Your task to perform on an android device: turn notification dots on Image 0: 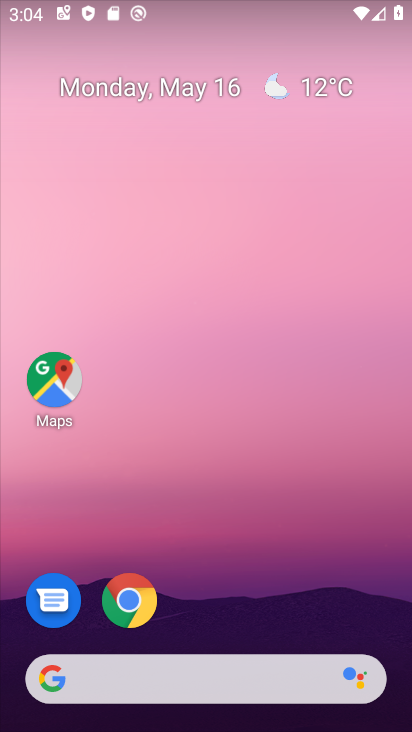
Step 0: drag from (213, 655) to (342, 2)
Your task to perform on an android device: turn notification dots on Image 1: 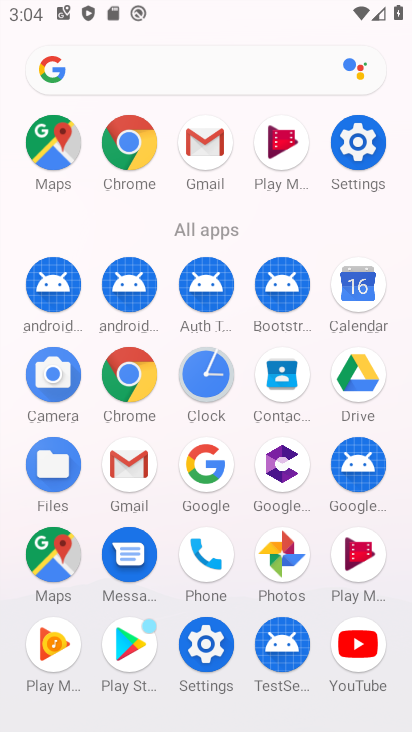
Step 1: click (351, 151)
Your task to perform on an android device: turn notification dots on Image 2: 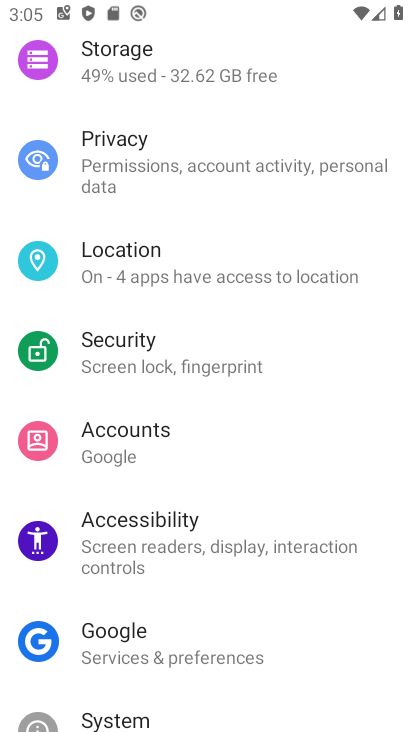
Step 2: drag from (207, 200) to (216, 724)
Your task to perform on an android device: turn notification dots on Image 3: 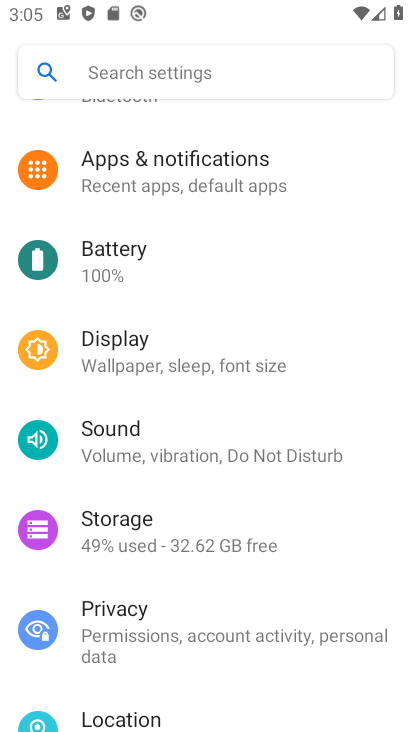
Step 3: click (174, 173)
Your task to perform on an android device: turn notification dots on Image 4: 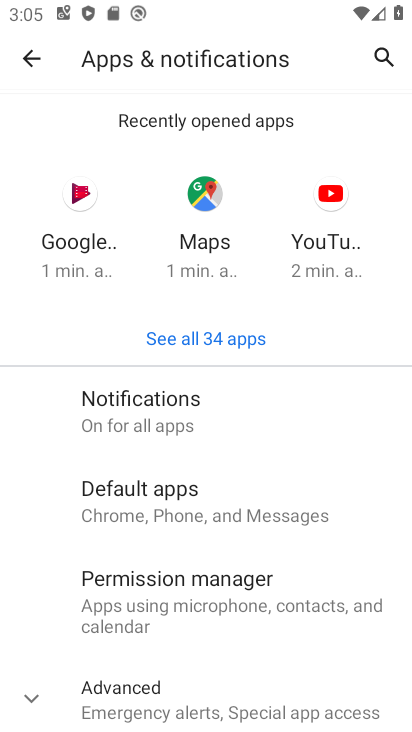
Step 4: click (185, 411)
Your task to perform on an android device: turn notification dots on Image 5: 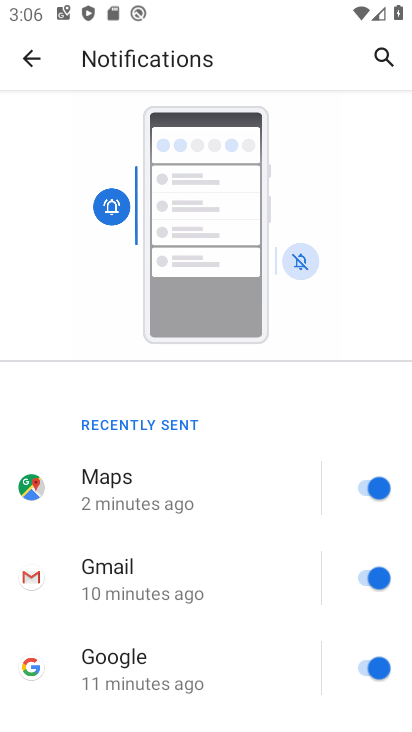
Step 5: drag from (232, 649) to (144, 73)
Your task to perform on an android device: turn notification dots on Image 6: 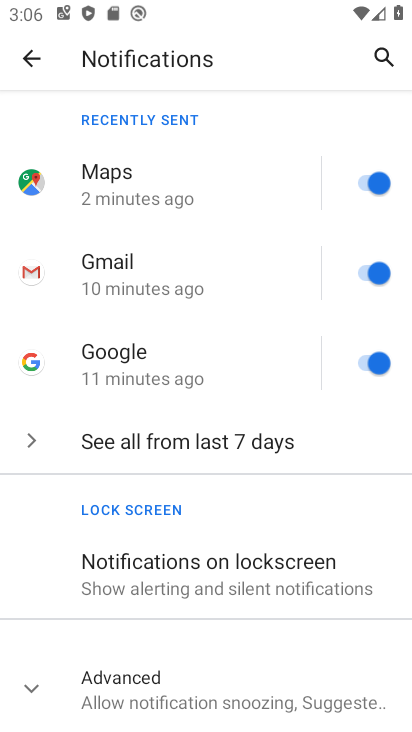
Step 6: drag from (207, 686) to (144, 220)
Your task to perform on an android device: turn notification dots on Image 7: 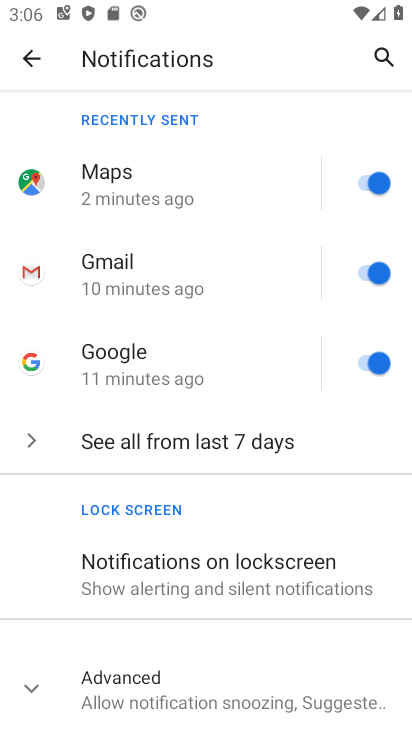
Step 7: click (150, 684)
Your task to perform on an android device: turn notification dots on Image 8: 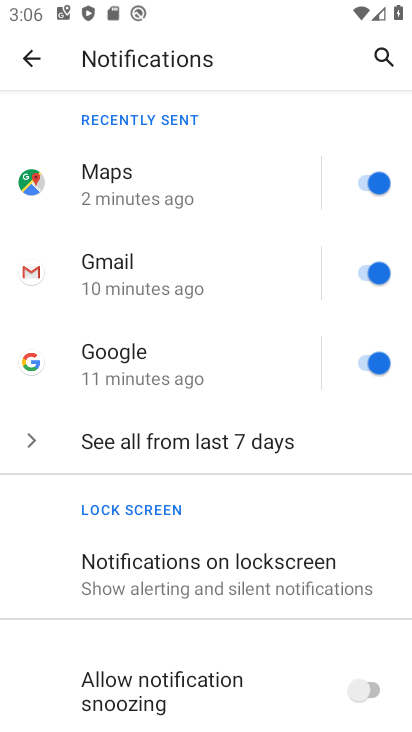
Step 8: task complete